Your task to perform on an android device: turn on the 24-hour format for clock Image 0: 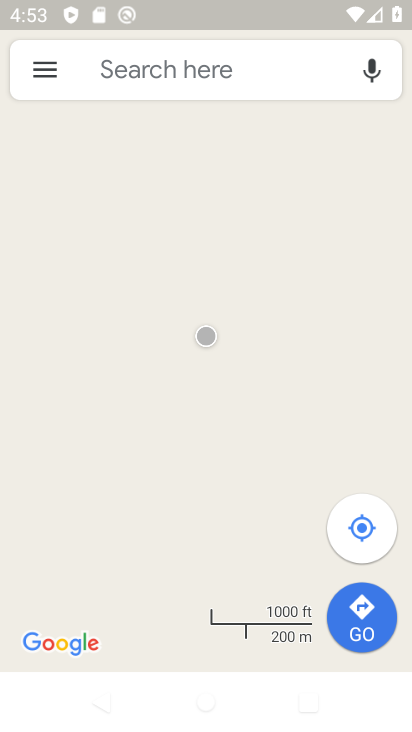
Step 0: press home button
Your task to perform on an android device: turn on the 24-hour format for clock Image 1: 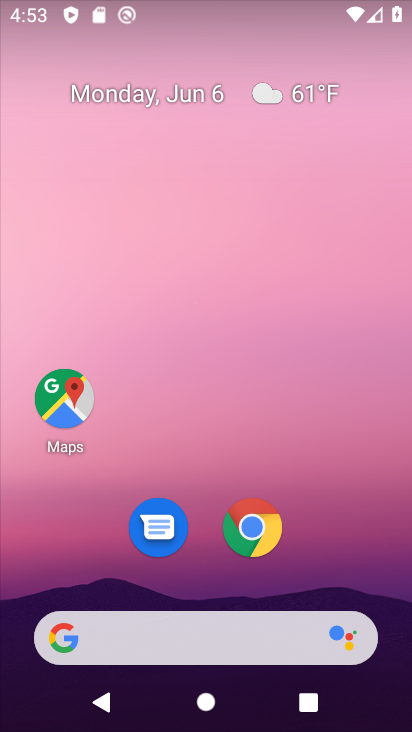
Step 1: drag from (388, 689) to (365, 308)
Your task to perform on an android device: turn on the 24-hour format for clock Image 2: 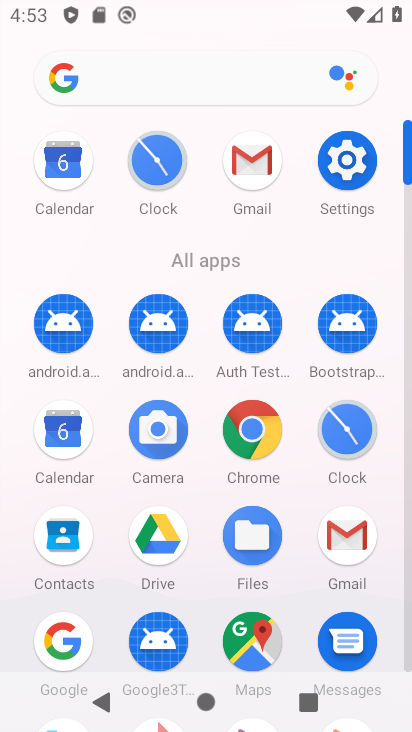
Step 2: click (356, 176)
Your task to perform on an android device: turn on the 24-hour format for clock Image 3: 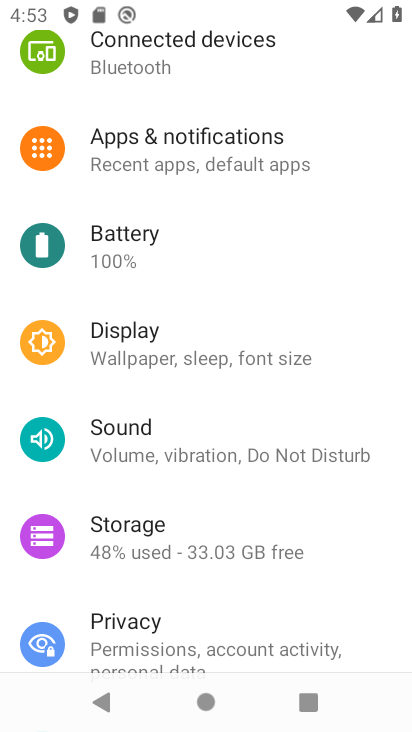
Step 3: press home button
Your task to perform on an android device: turn on the 24-hour format for clock Image 4: 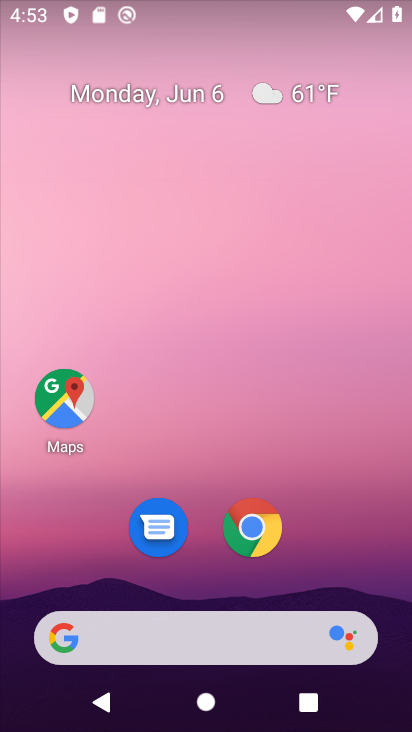
Step 4: drag from (395, 638) to (379, 174)
Your task to perform on an android device: turn on the 24-hour format for clock Image 5: 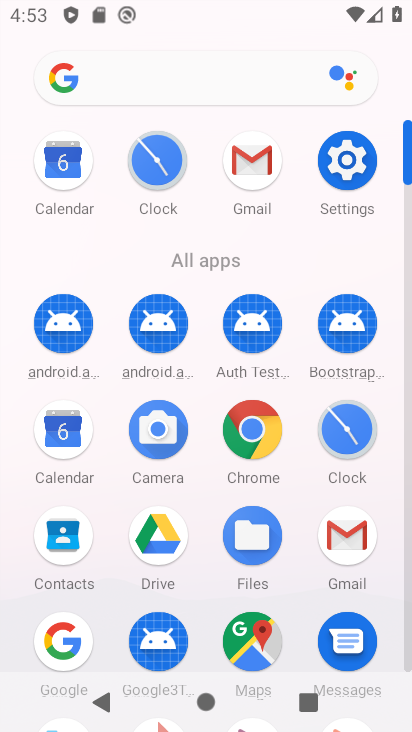
Step 5: click (347, 436)
Your task to perform on an android device: turn on the 24-hour format for clock Image 6: 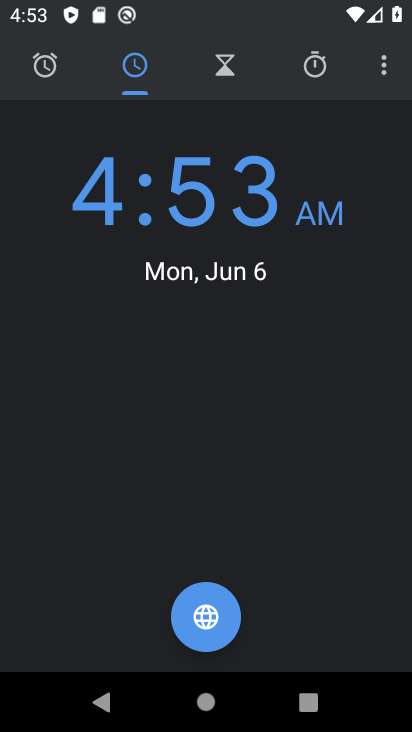
Step 6: click (383, 61)
Your task to perform on an android device: turn on the 24-hour format for clock Image 7: 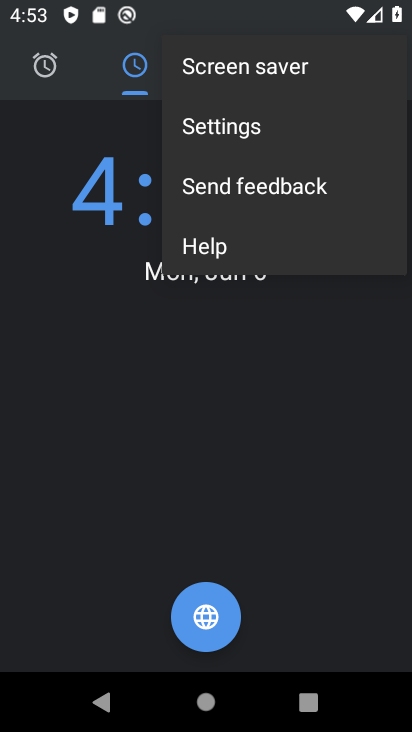
Step 7: click (251, 129)
Your task to perform on an android device: turn on the 24-hour format for clock Image 8: 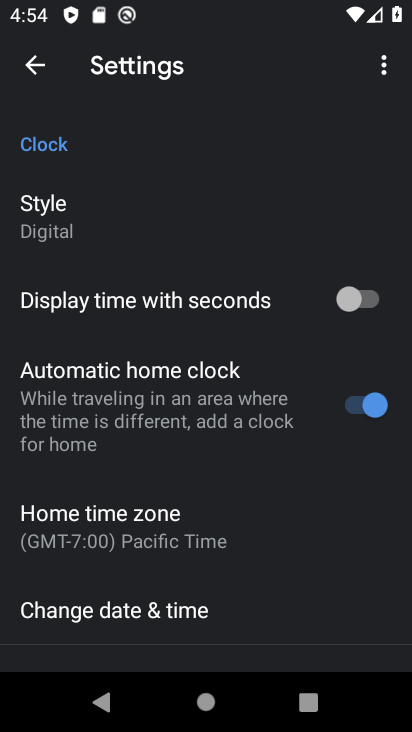
Step 8: drag from (237, 603) to (210, 309)
Your task to perform on an android device: turn on the 24-hour format for clock Image 9: 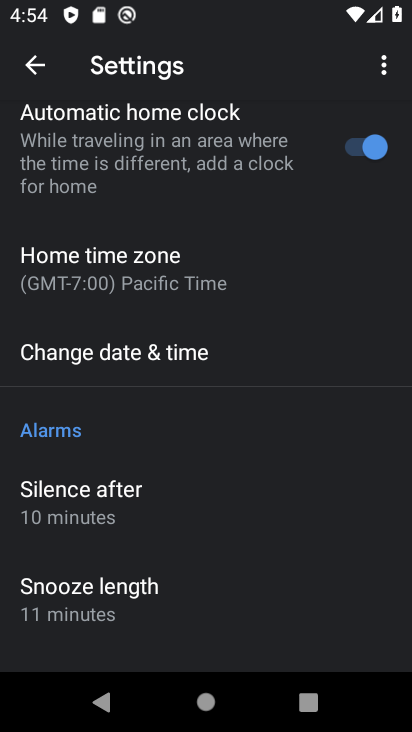
Step 9: click (135, 350)
Your task to perform on an android device: turn on the 24-hour format for clock Image 10: 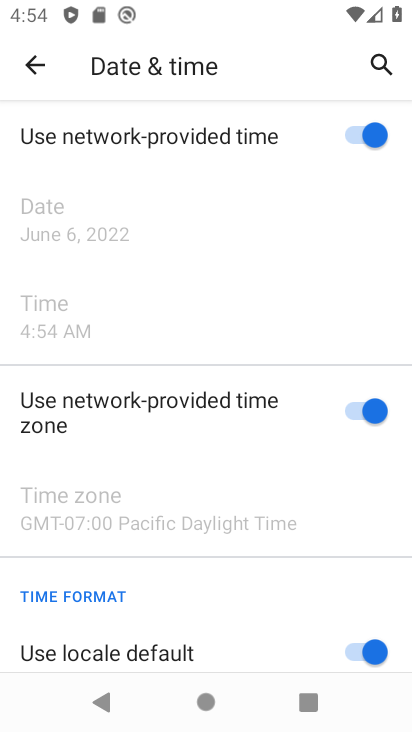
Step 10: drag from (224, 642) to (210, 362)
Your task to perform on an android device: turn on the 24-hour format for clock Image 11: 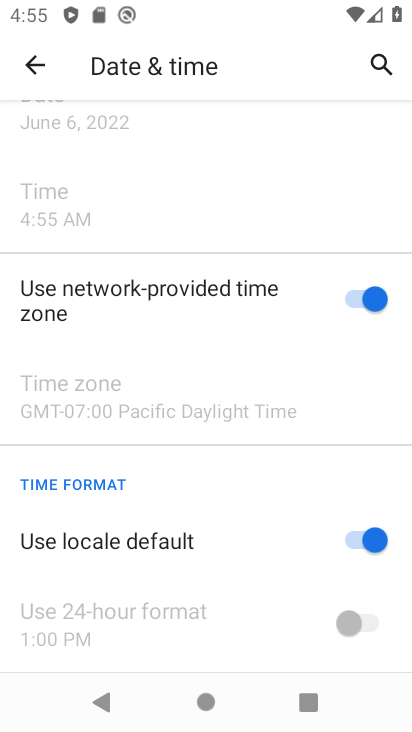
Step 11: click (348, 535)
Your task to perform on an android device: turn on the 24-hour format for clock Image 12: 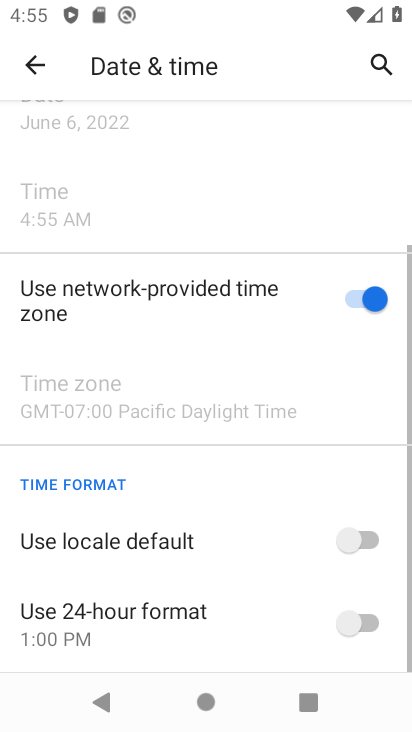
Step 12: click (369, 627)
Your task to perform on an android device: turn on the 24-hour format for clock Image 13: 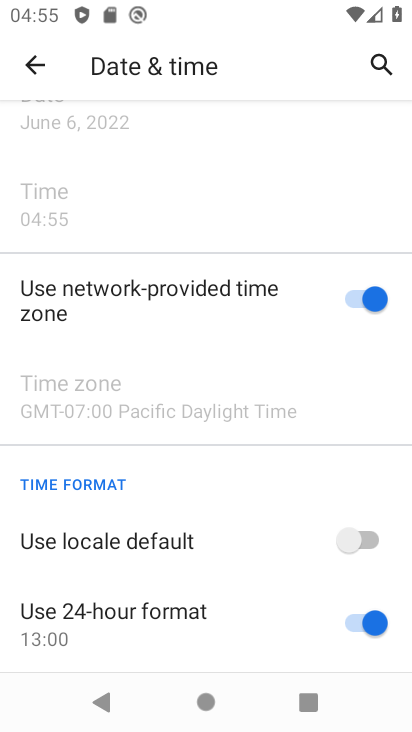
Step 13: task complete